Your task to perform on an android device: Open Google Chrome Image 0: 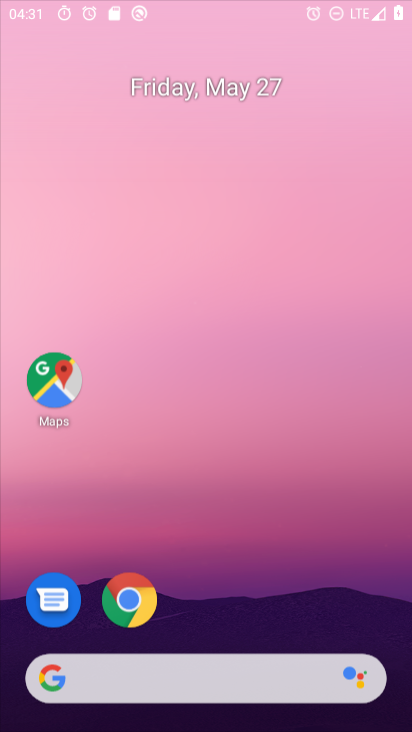
Step 0: drag from (202, 576) to (130, 32)
Your task to perform on an android device: Open Google Chrome Image 1: 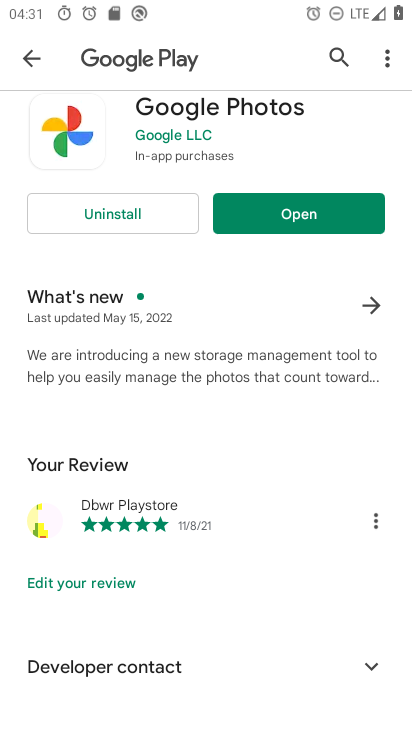
Step 1: press home button
Your task to perform on an android device: Open Google Chrome Image 2: 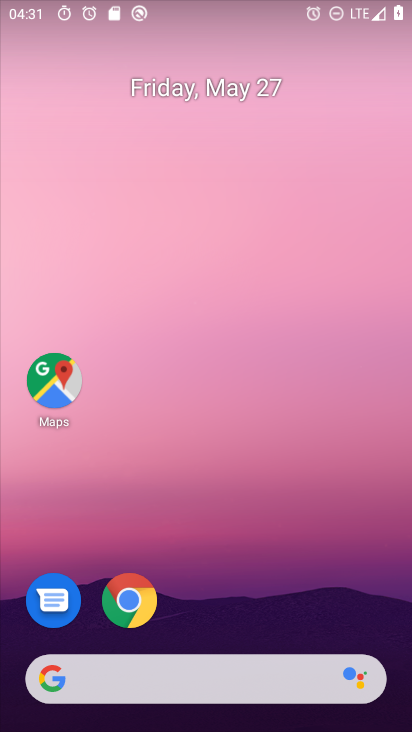
Step 2: click (124, 594)
Your task to perform on an android device: Open Google Chrome Image 3: 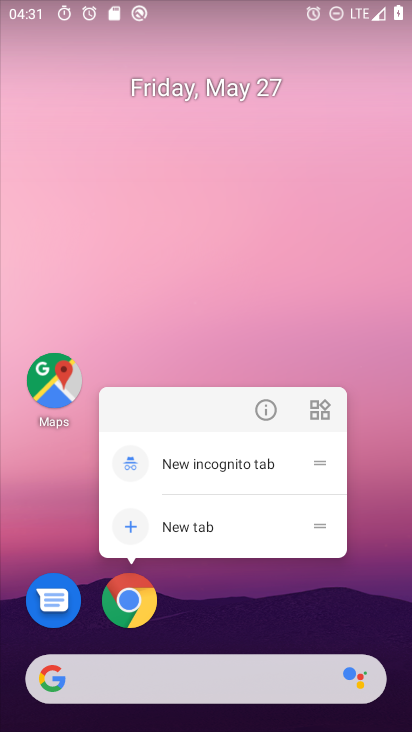
Step 3: click (129, 603)
Your task to perform on an android device: Open Google Chrome Image 4: 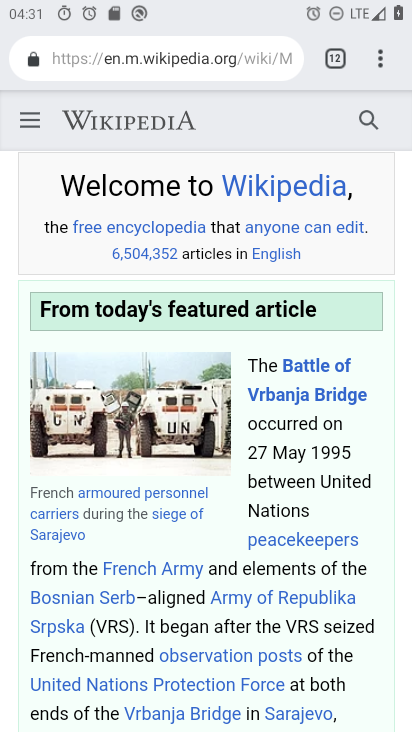
Step 4: task complete